Your task to perform on an android device: Open settings on Google Maps Image 0: 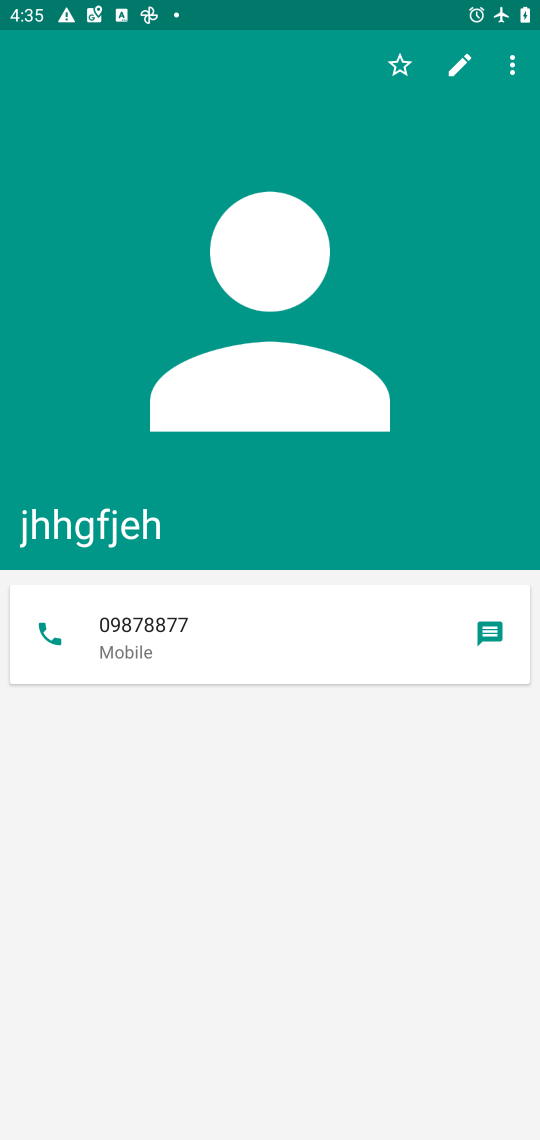
Step 0: press home button
Your task to perform on an android device: Open settings on Google Maps Image 1: 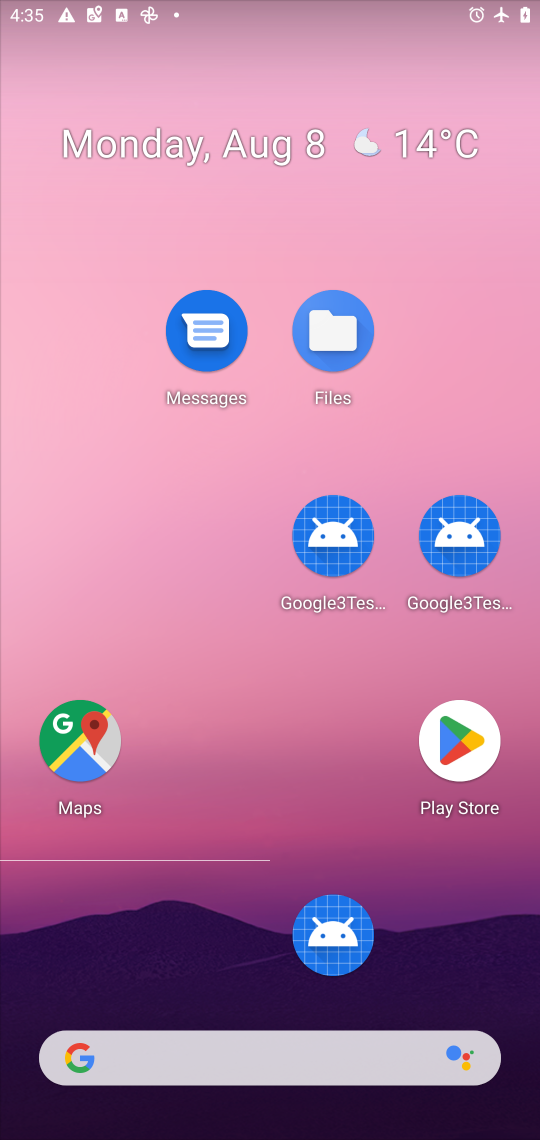
Step 1: drag from (322, 1063) to (431, 164)
Your task to perform on an android device: Open settings on Google Maps Image 2: 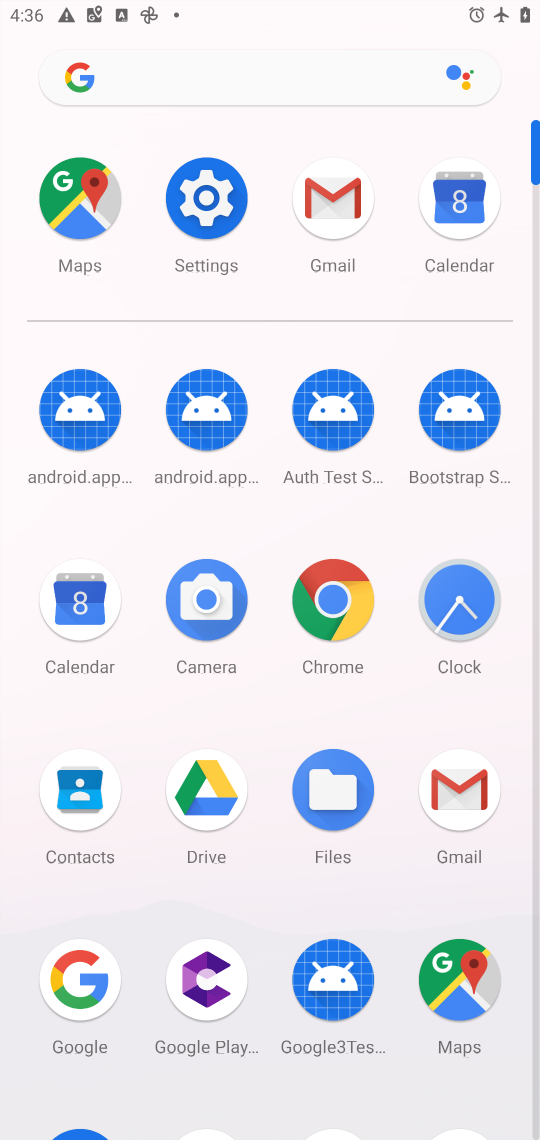
Step 2: click (467, 995)
Your task to perform on an android device: Open settings on Google Maps Image 3: 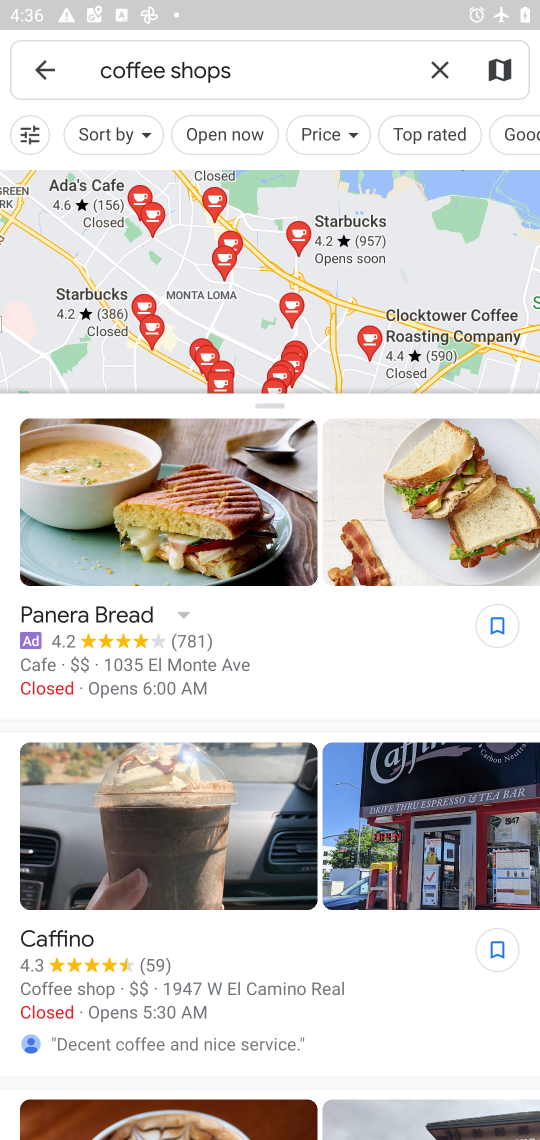
Step 3: press back button
Your task to perform on an android device: Open settings on Google Maps Image 4: 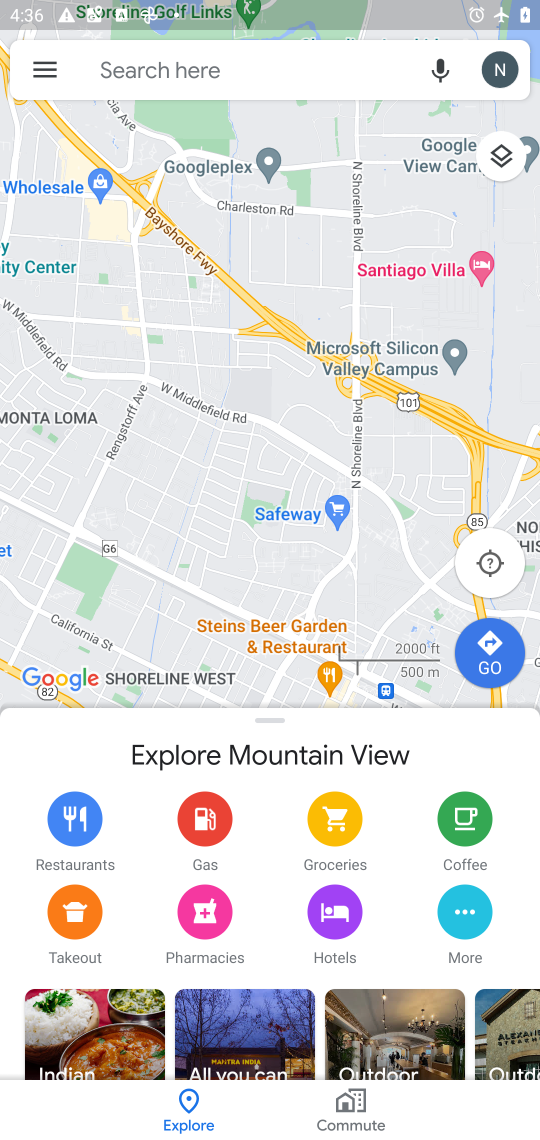
Step 4: click (46, 59)
Your task to perform on an android device: Open settings on Google Maps Image 5: 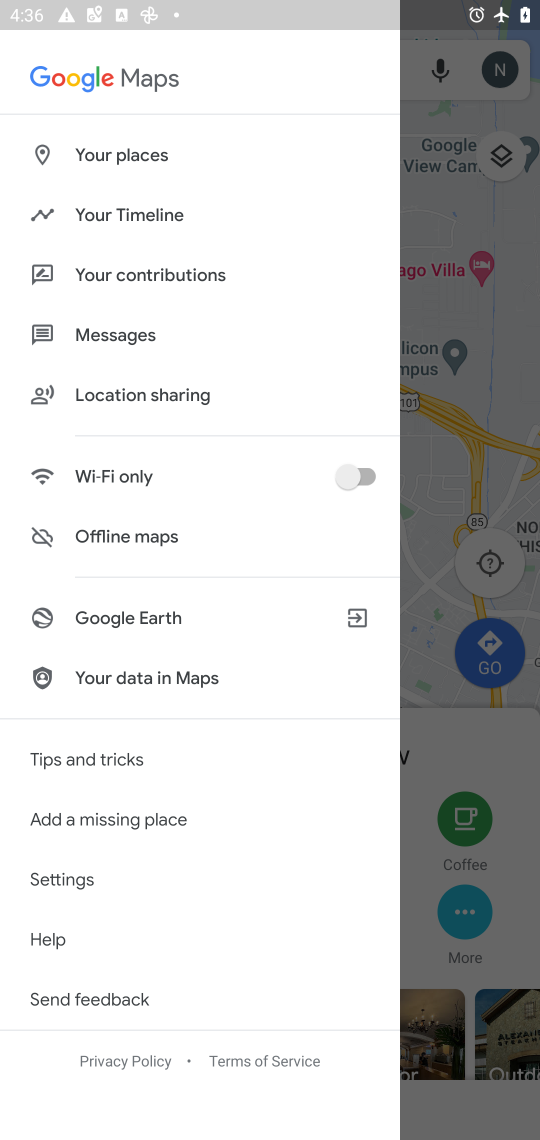
Step 5: click (136, 220)
Your task to perform on an android device: Open settings on Google Maps Image 6: 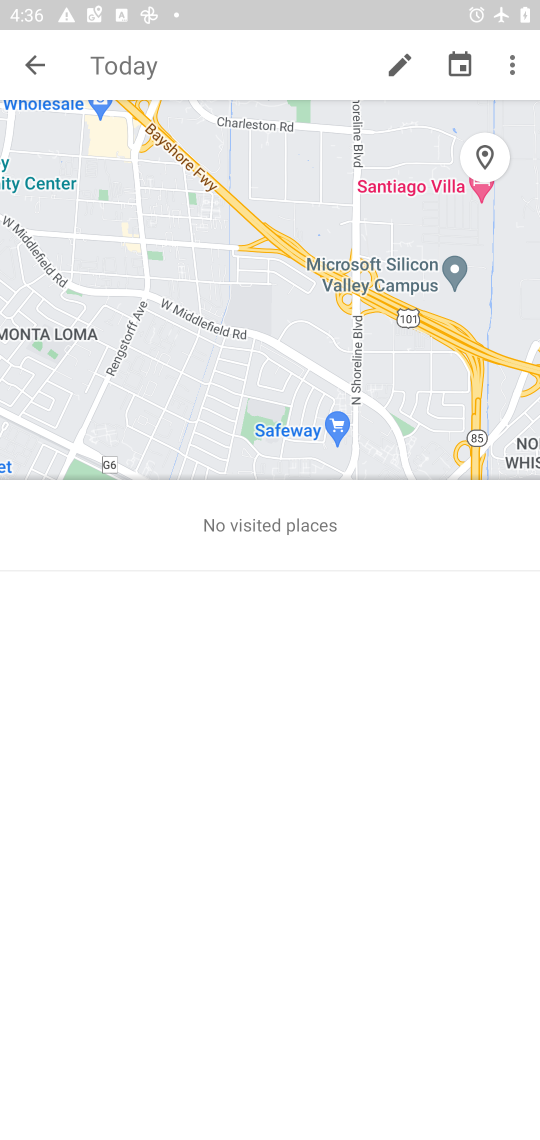
Step 6: click (500, 60)
Your task to perform on an android device: Open settings on Google Maps Image 7: 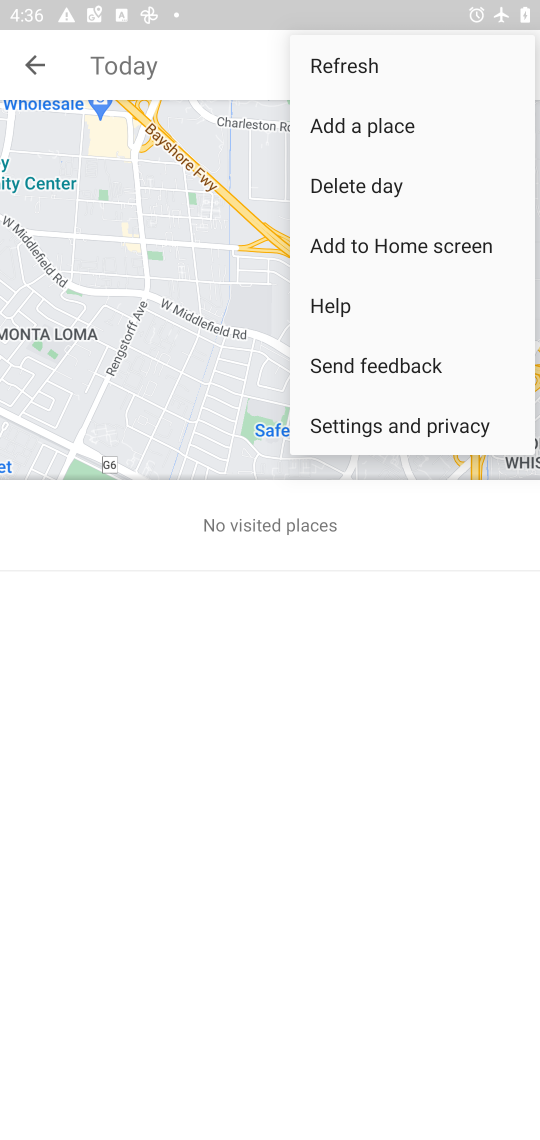
Step 7: click (371, 422)
Your task to perform on an android device: Open settings on Google Maps Image 8: 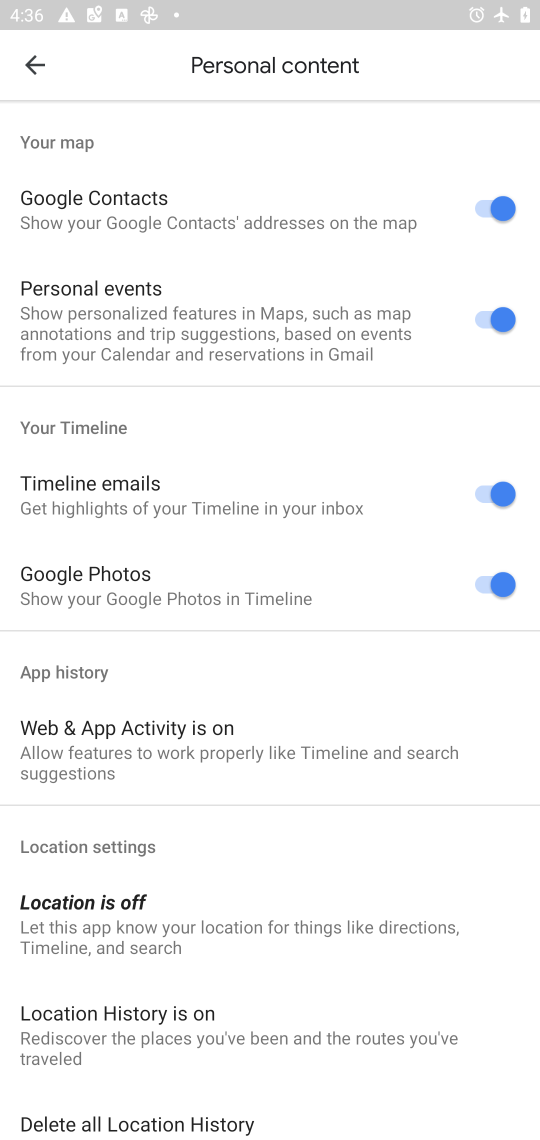
Step 8: task complete